Your task to perform on an android device: Go to CNN.com Image 0: 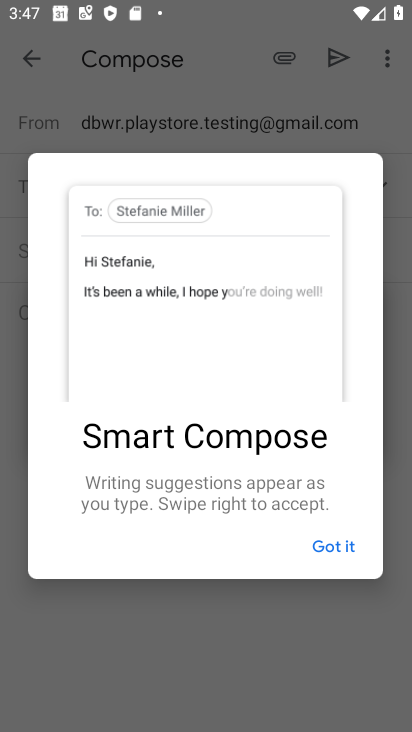
Step 0: press back button
Your task to perform on an android device: Go to CNN.com Image 1: 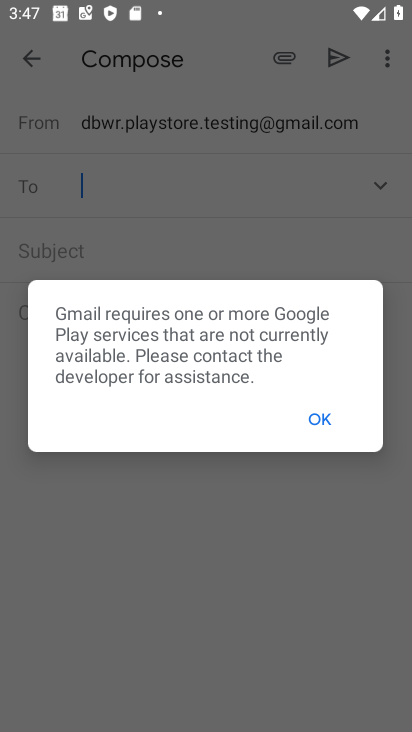
Step 1: press home button
Your task to perform on an android device: Go to CNN.com Image 2: 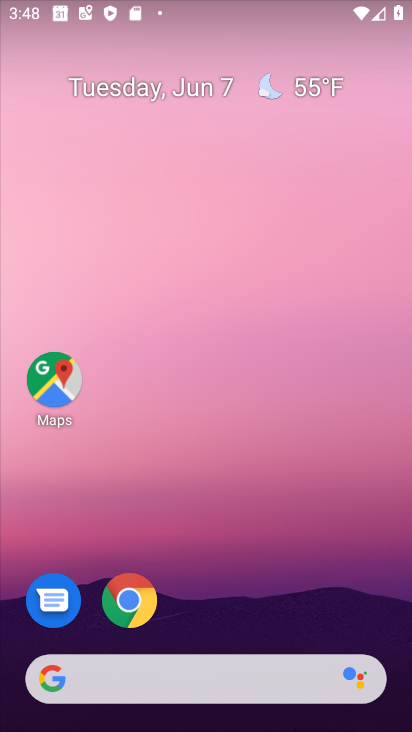
Step 2: click (135, 623)
Your task to perform on an android device: Go to CNN.com Image 3: 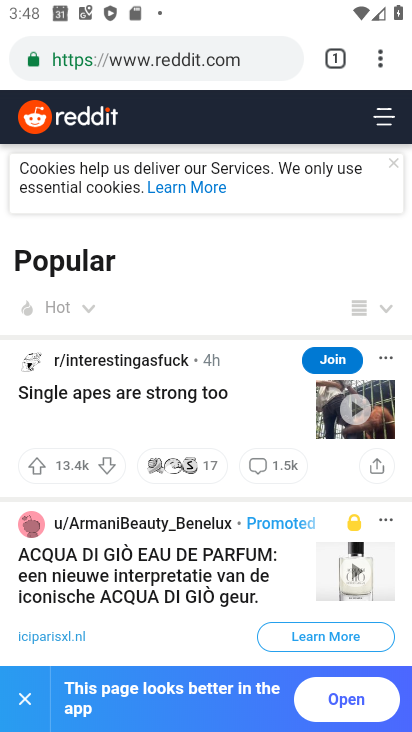
Step 3: click (202, 56)
Your task to perform on an android device: Go to CNN.com Image 4: 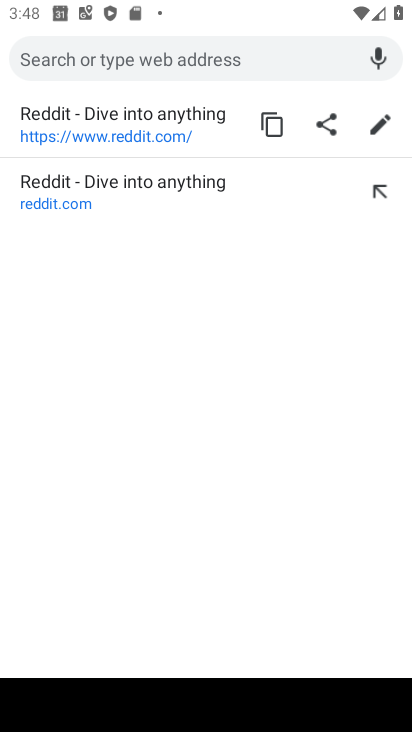
Step 4: type "www.cnn.com"
Your task to perform on an android device: Go to CNN.com Image 5: 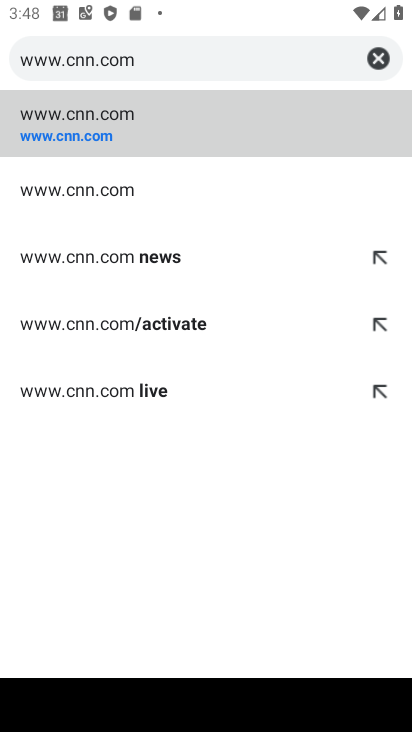
Step 5: click (90, 121)
Your task to perform on an android device: Go to CNN.com Image 6: 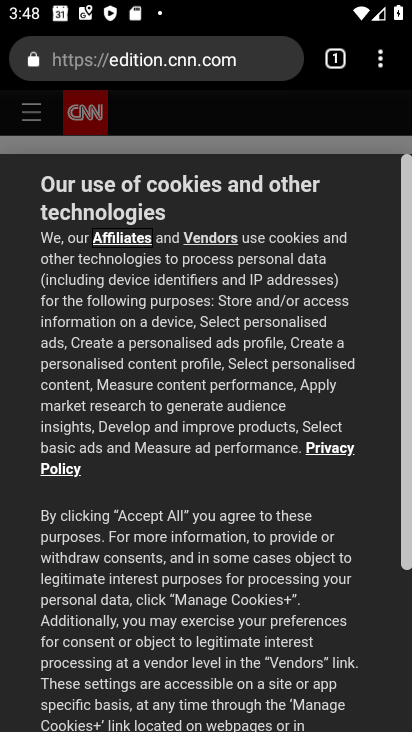
Step 6: task complete